Your task to perform on an android device: turn on airplane mode Image 0: 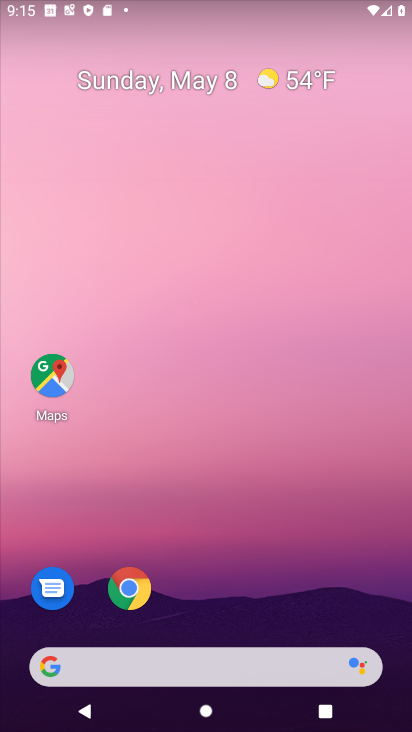
Step 0: drag from (13, 652) to (232, 157)
Your task to perform on an android device: turn on airplane mode Image 1: 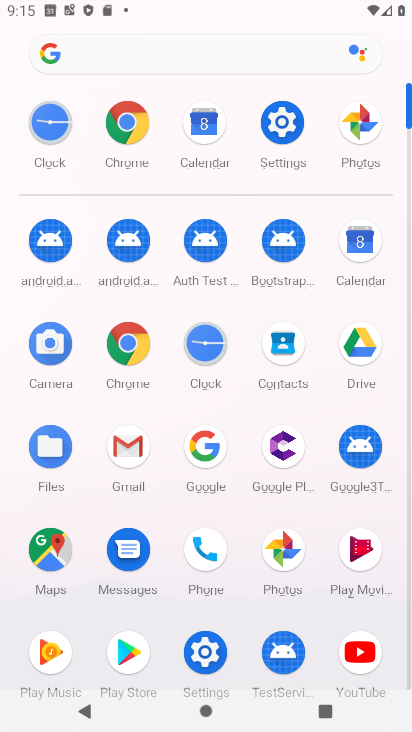
Step 1: click (272, 135)
Your task to perform on an android device: turn on airplane mode Image 2: 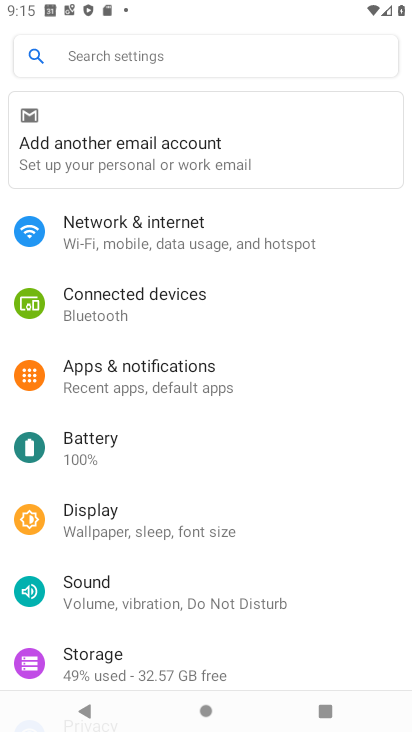
Step 2: click (141, 234)
Your task to perform on an android device: turn on airplane mode Image 3: 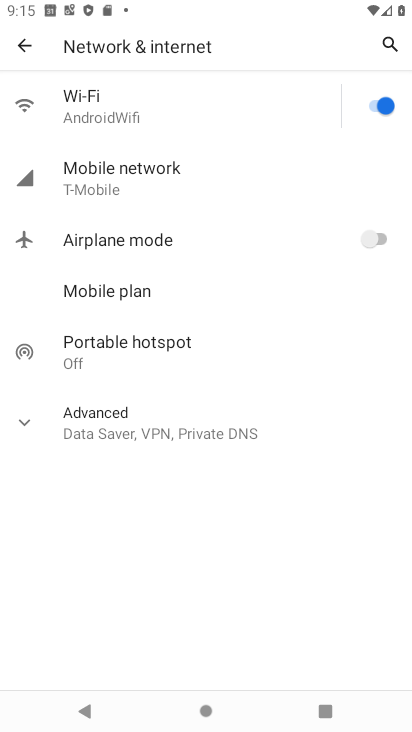
Step 3: click (369, 238)
Your task to perform on an android device: turn on airplane mode Image 4: 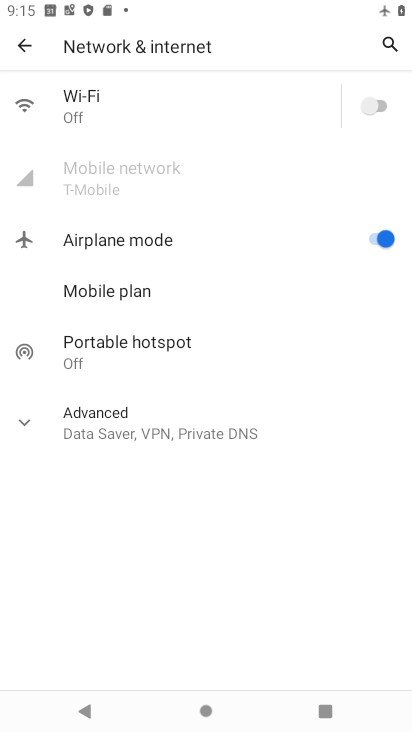
Step 4: task complete